Your task to perform on an android device: turn on bluetooth scan Image 0: 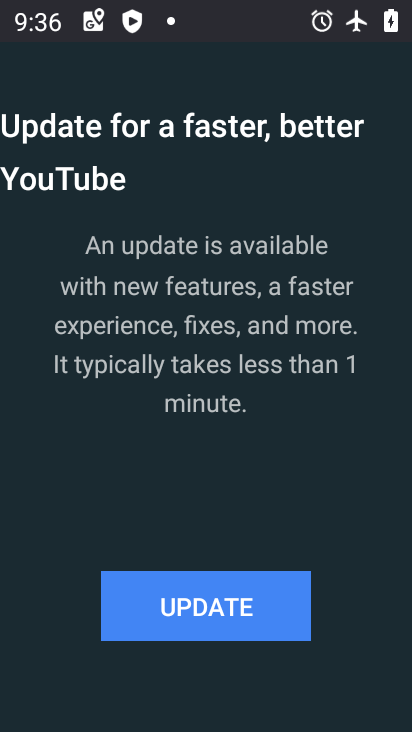
Step 0: press home button
Your task to perform on an android device: turn on bluetooth scan Image 1: 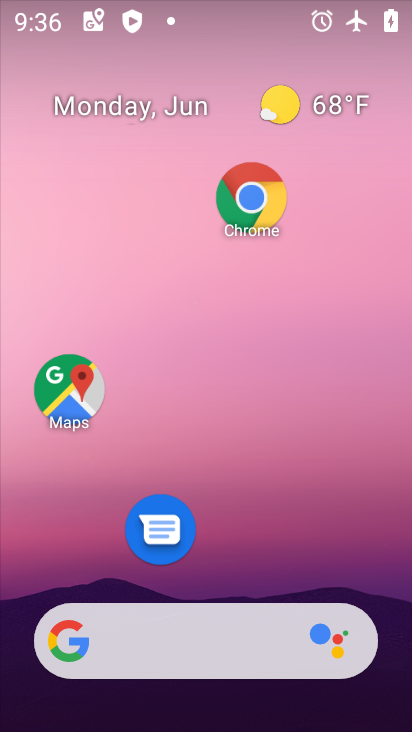
Step 1: drag from (226, 577) to (258, 248)
Your task to perform on an android device: turn on bluetooth scan Image 2: 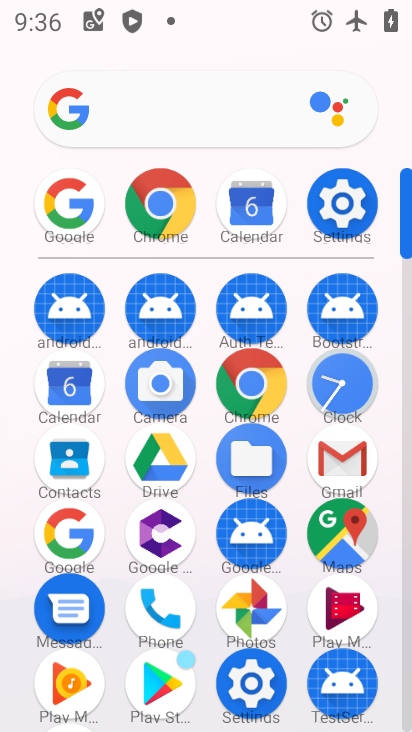
Step 2: click (349, 190)
Your task to perform on an android device: turn on bluetooth scan Image 3: 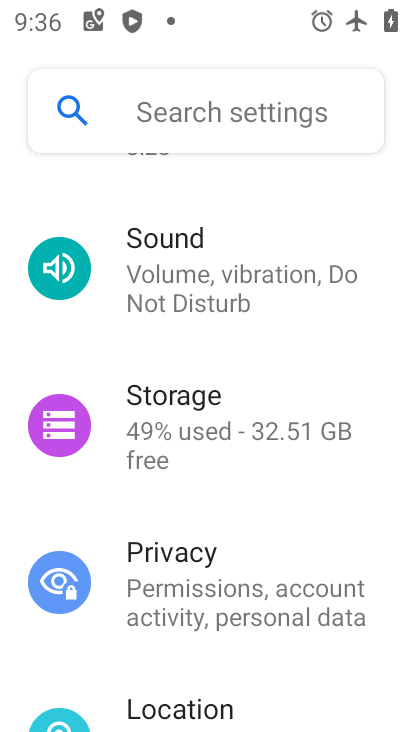
Step 3: drag from (239, 648) to (239, 374)
Your task to perform on an android device: turn on bluetooth scan Image 4: 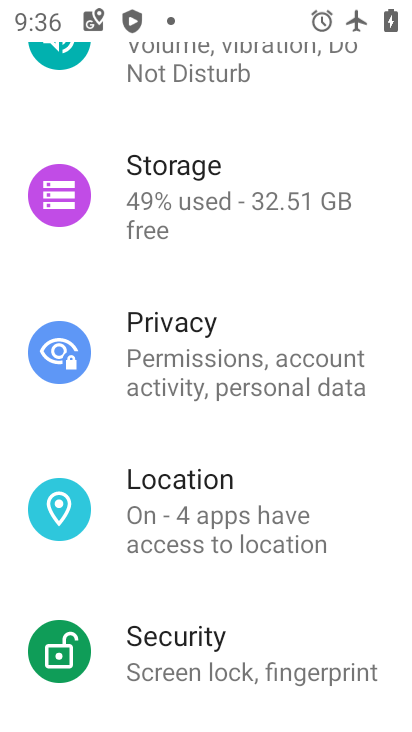
Step 4: click (237, 471)
Your task to perform on an android device: turn on bluetooth scan Image 5: 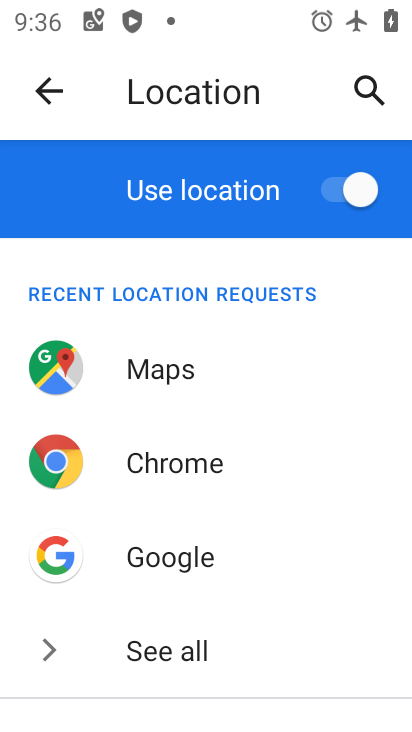
Step 5: drag from (239, 583) to (242, 231)
Your task to perform on an android device: turn on bluetooth scan Image 6: 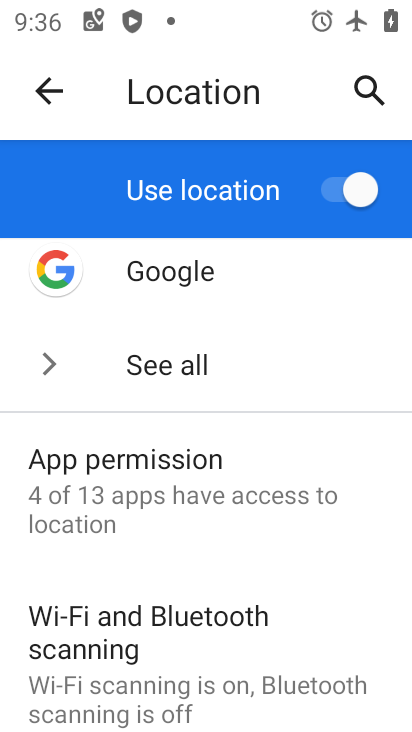
Step 6: click (218, 632)
Your task to perform on an android device: turn on bluetooth scan Image 7: 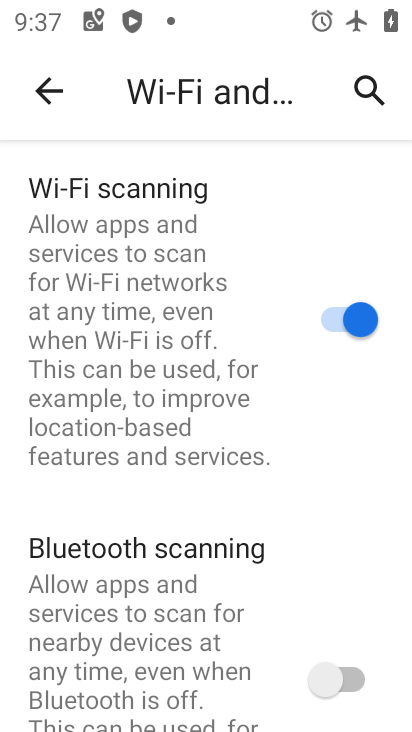
Step 7: click (354, 673)
Your task to perform on an android device: turn on bluetooth scan Image 8: 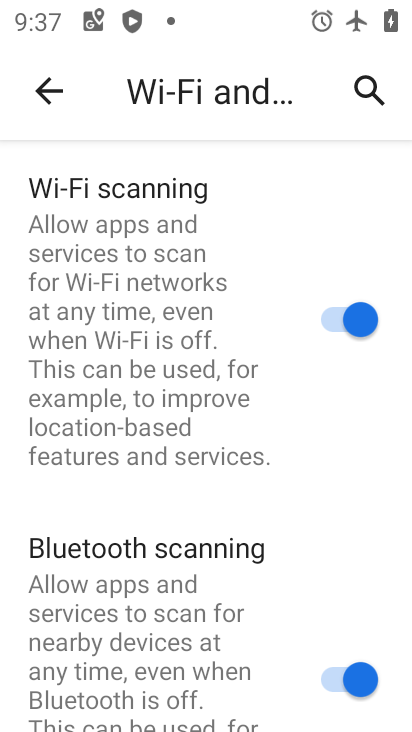
Step 8: task complete